Your task to perform on an android device: Go to Amazon Image 0: 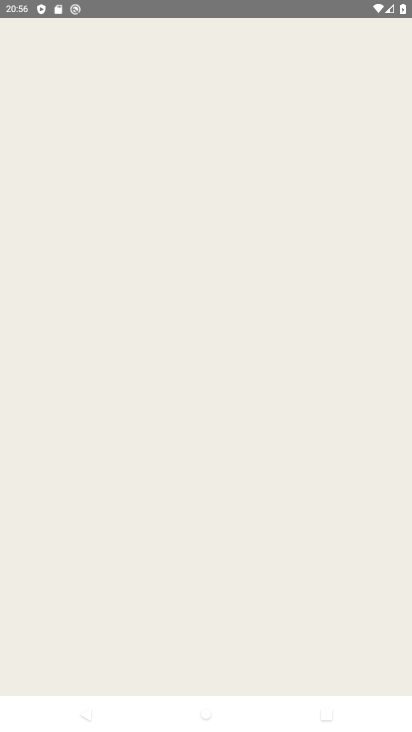
Step 0: press home button
Your task to perform on an android device: Go to Amazon Image 1: 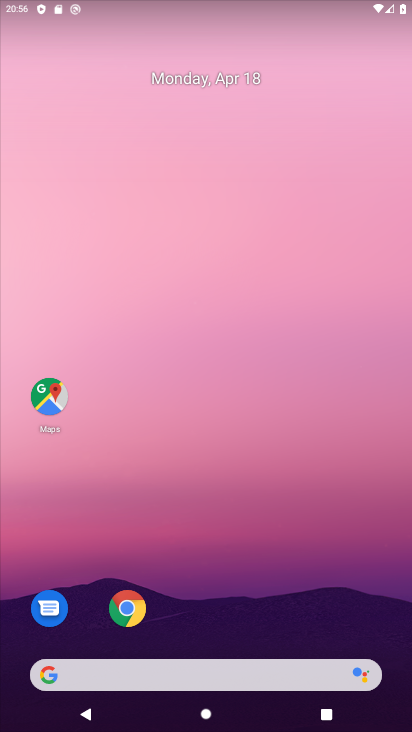
Step 1: click (122, 608)
Your task to perform on an android device: Go to Amazon Image 2: 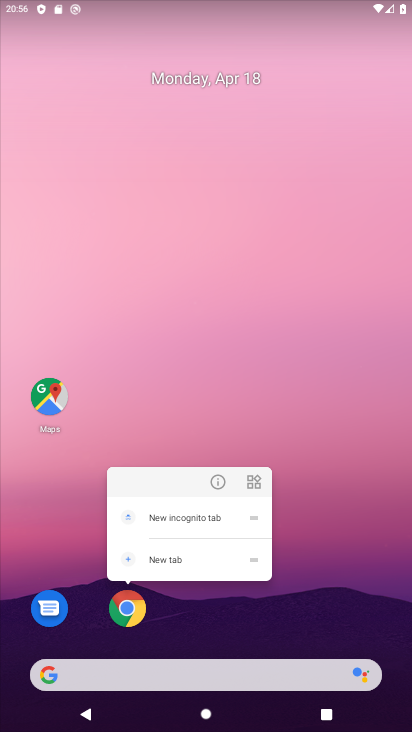
Step 2: click (132, 604)
Your task to perform on an android device: Go to Amazon Image 3: 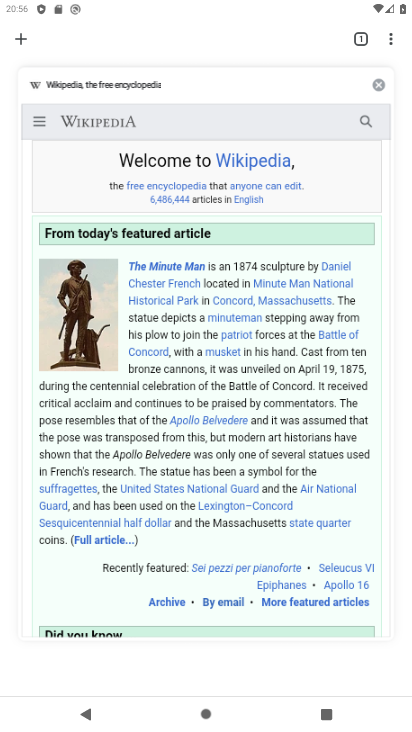
Step 3: press back button
Your task to perform on an android device: Go to Amazon Image 4: 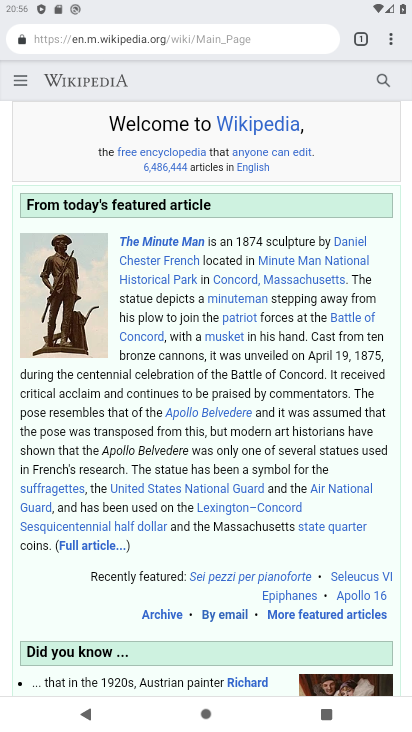
Step 4: press back button
Your task to perform on an android device: Go to Amazon Image 5: 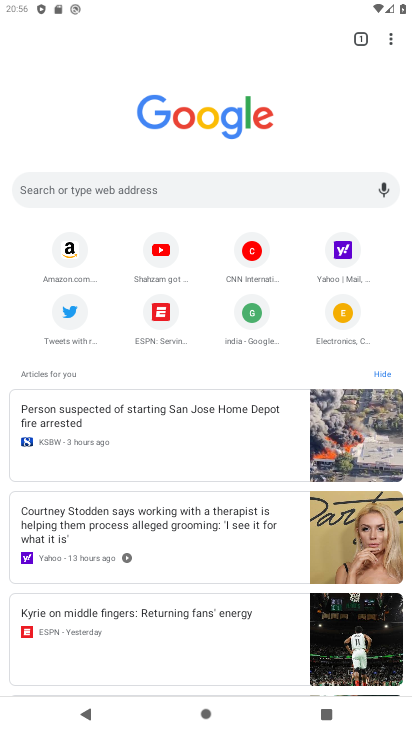
Step 5: click (68, 251)
Your task to perform on an android device: Go to Amazon Image 6: 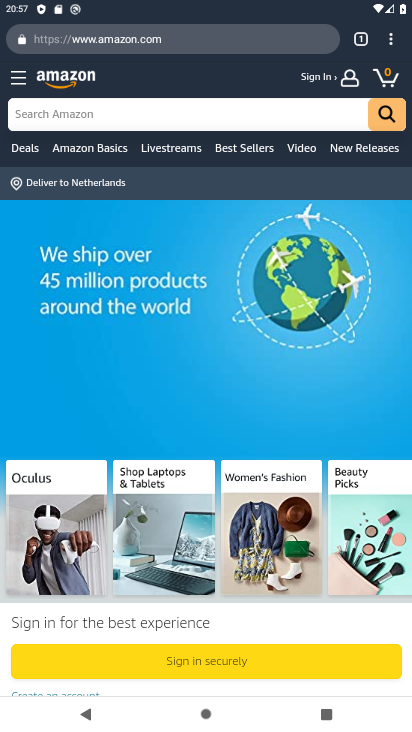
Step 6: task complete